Your task to perform on an android device: Open network settings Image 0: 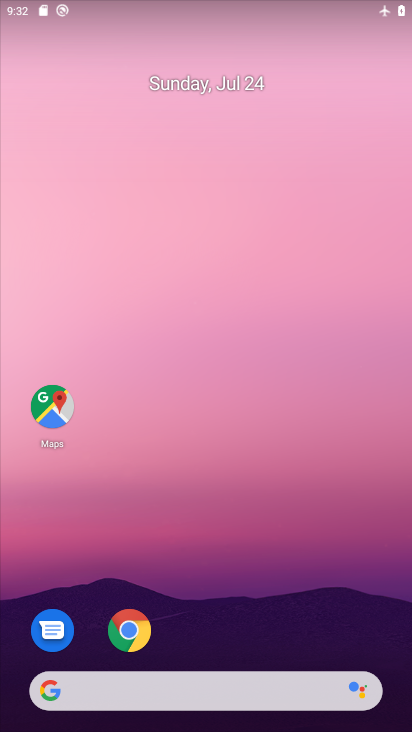
Step 0: drag from (250, 643) to (250, 77)
Your task to perform on an android device: Open network settings Image 1: 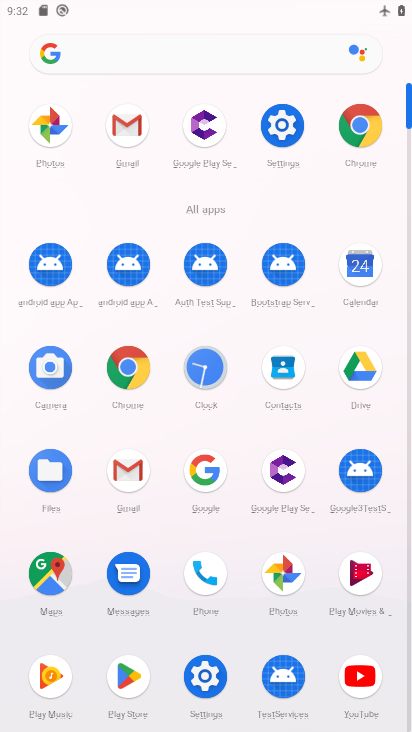
Step 1: click (294, 123)
Your task to perform on an android device: Open network settings Image 2: 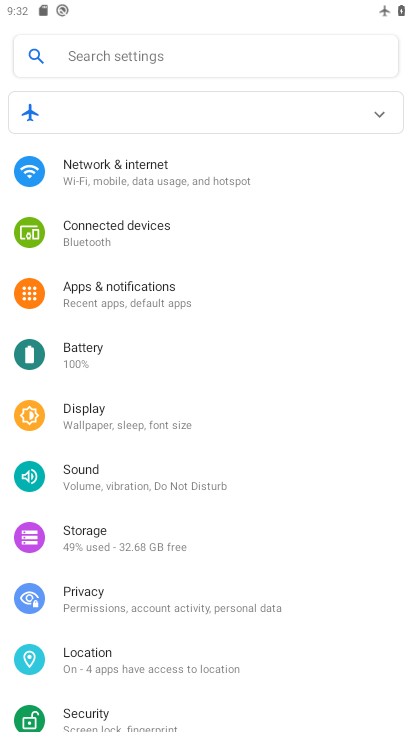
Step 2: click (149, 175)
Your task to perform on an android device: Open network settings Image 3: 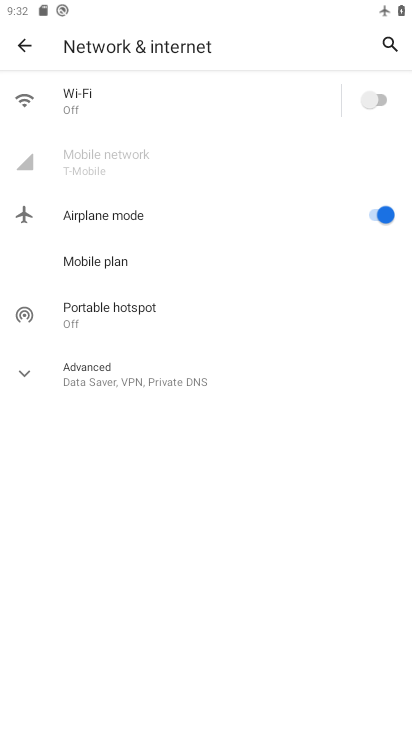
Step 3: task complete